Your task to perform on an android device: Toggle the flashlight Image 0: 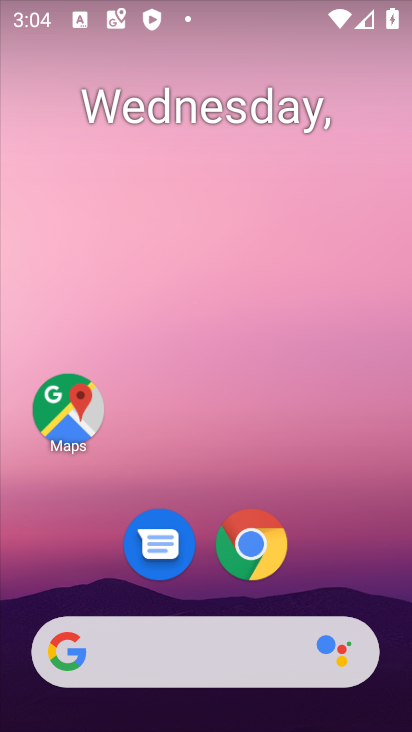
Step 0: drag from (222, 11) to (279, 431)
Your task to perform on an android device: Toggle the flashlight Image 1: 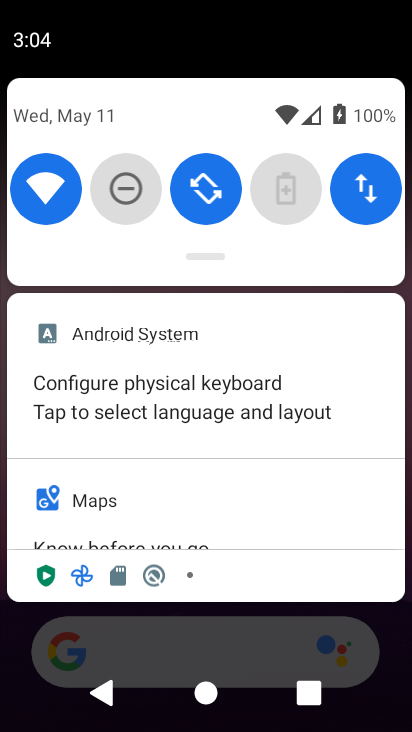
Step 1: drag from (208, 251) to (184, 539)
Your task to perform on an android device: Toggle the flashlight Image 2: 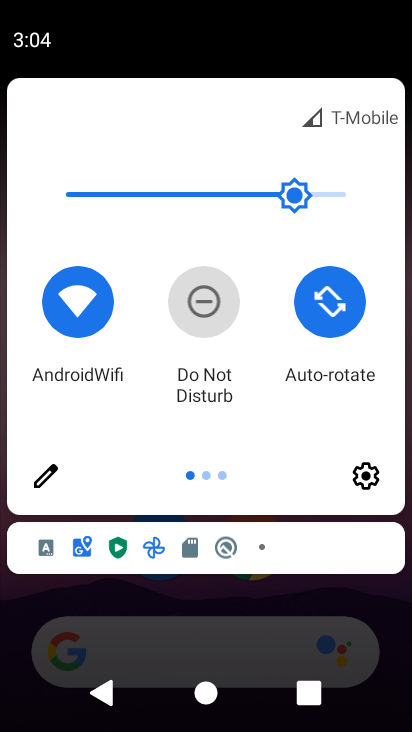
Step 2: click (39, 471)
Your task to perform on an android device: Toggle the flashlight Image 3: 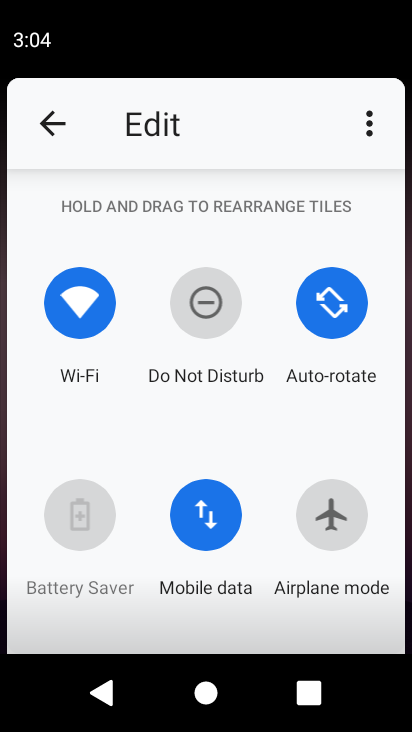
Step 3: task complete